Your task to perform on an android device: Go to Yahoo.com Image 0: 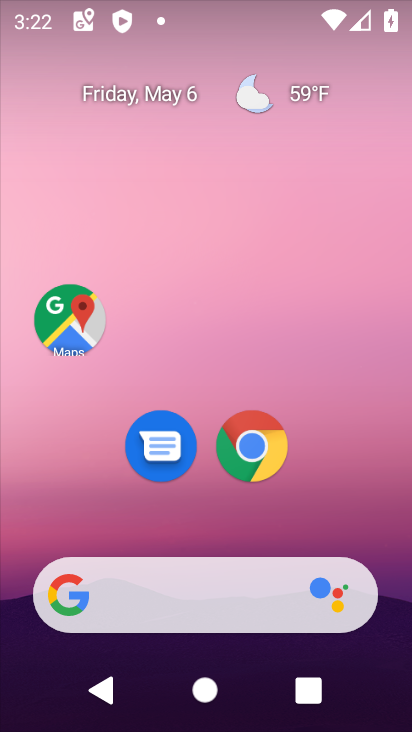
Step 0: click (232, 439)
Your task to perform on an android device: Go to Yahoo.com Image 1: 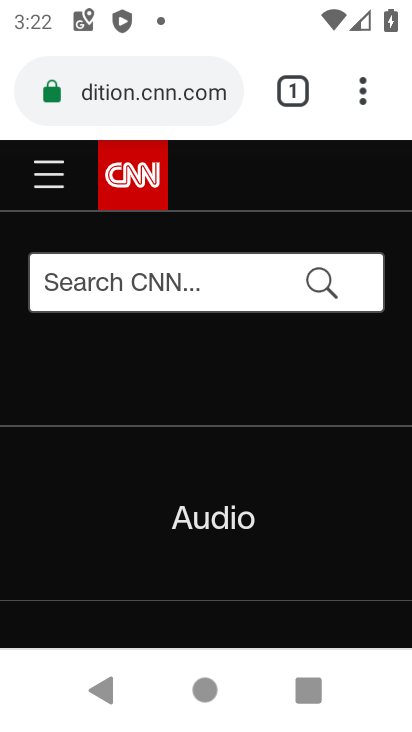
Step 1: click (163, 94)
Your task to perform on an android device: Go to Yahoo.com Image 2: 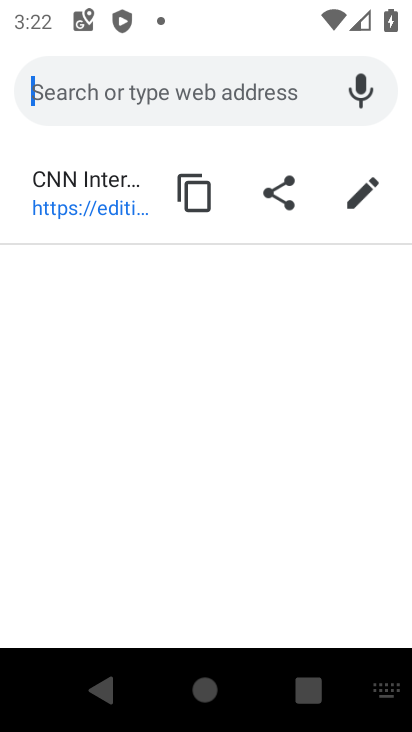
Step 2: type "yahoo.com"
Your task to perform on an android device: Go to Yahoo.com Image 3: 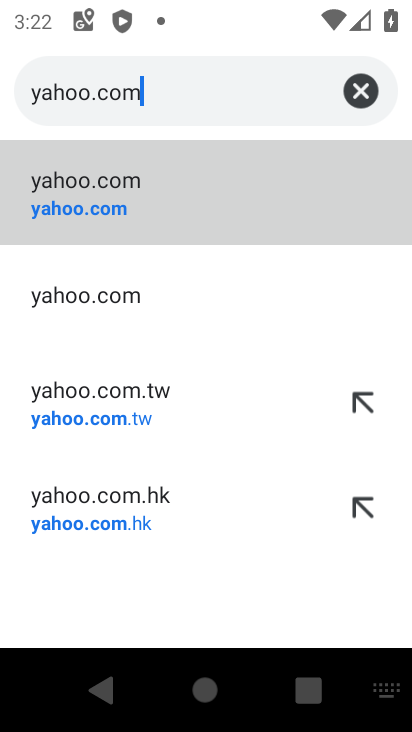
Step 3: click (122, 208)
Your task to perform on an android device: Go to Yahoo.com Image 4: 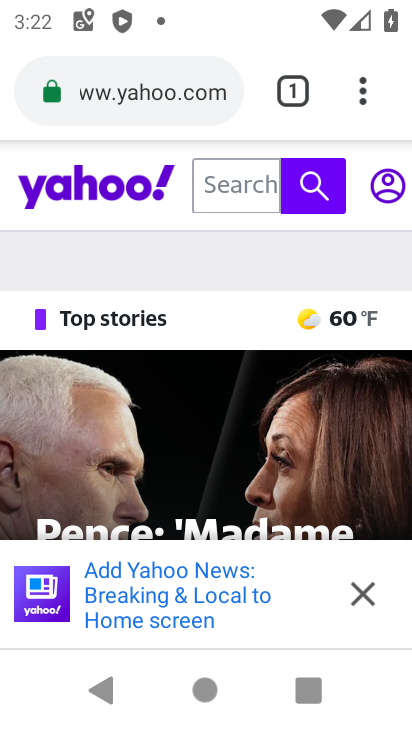
Step 4: task complete